Your task to perform on an android device: Is it going to rain tomorrow? Image 0: 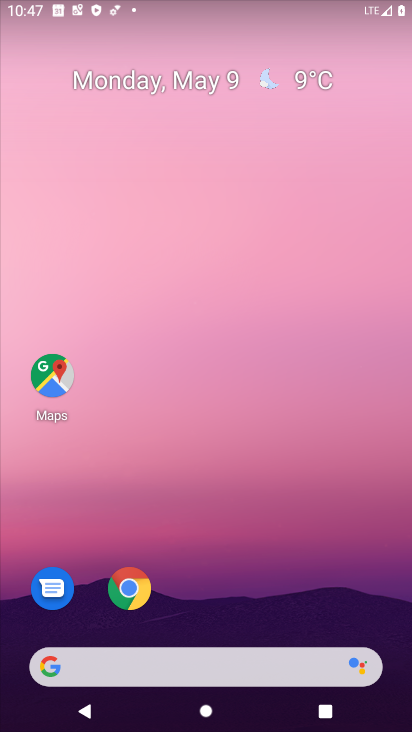
Step 0: press home button
Your task to perform on an android device: Is it going to rain tomorrow? Image 1: 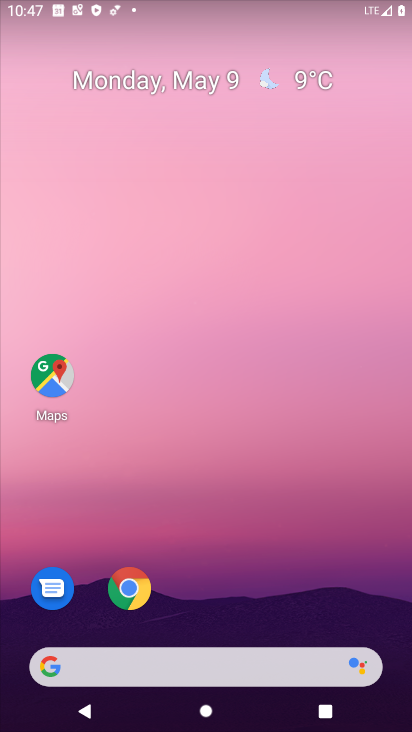
Step 1: click (57, 664)
Your task to perform on an android device: Is it going to rain tomorrow? Image 2: 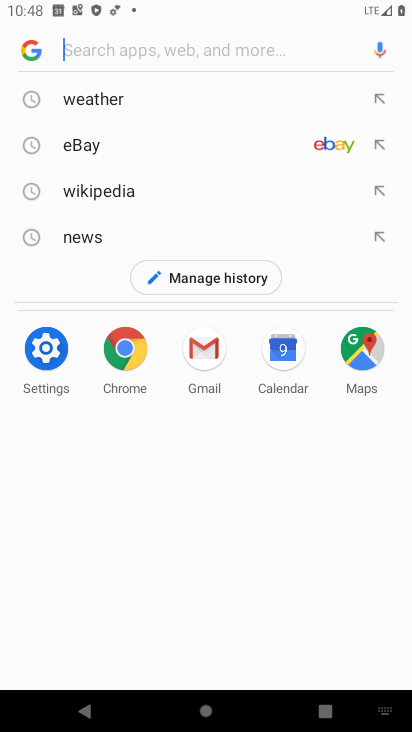
Step 2: click (126, 89)
Your task to perform on an android device: Is it going to rain tomorrow? Image 3: 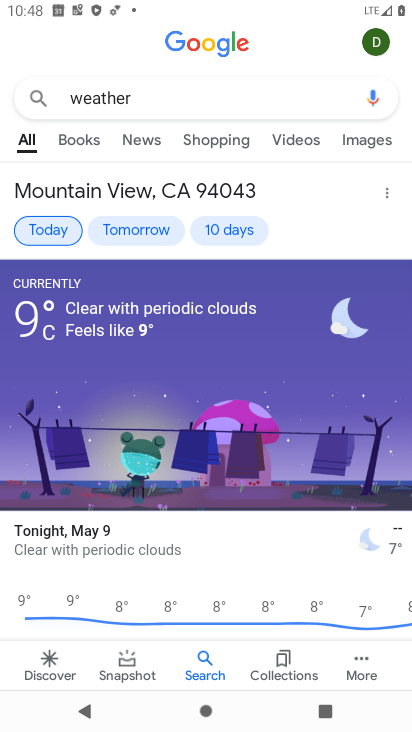
Step 3: click (140, 231)
Your task to perform on an android device: Is it going to rain tomorrow? Image 4: 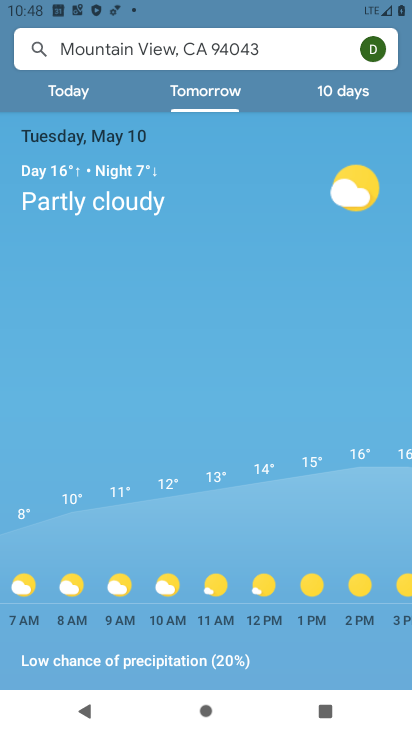
Step 4: task complete